Your task to perform on an android device: Go to ESPN.com Image 0: 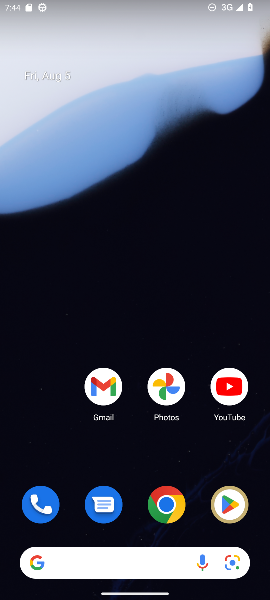
Step 0: click (159, 509)
Your task to perform on an android device: Go to ESPN.com Image 1: 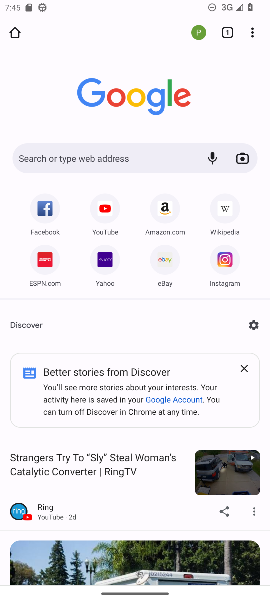
Step 1: click (48, 268)
Your task to perform on an android device: Go to ESPN.com Image 2: 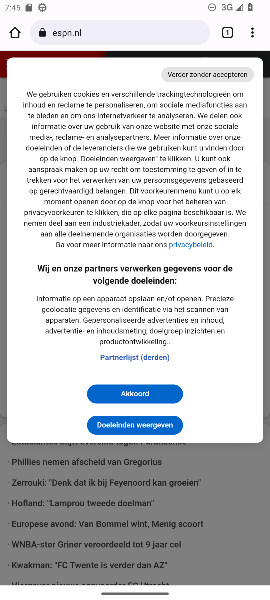
Step 2: task complete